Your task to perform on an android device: toggle improve location accuracy Image 0: 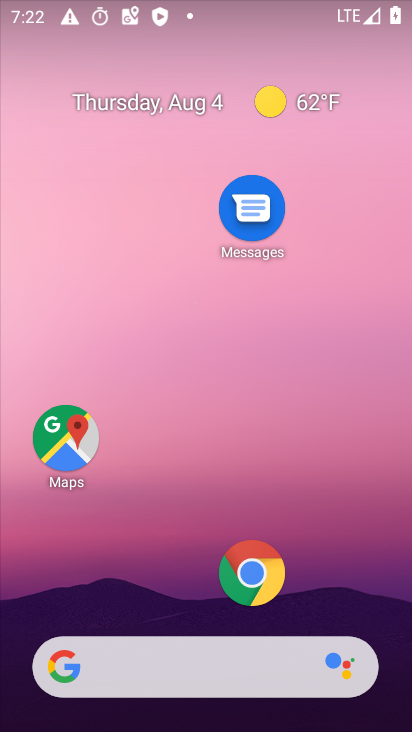
Step 0: press home button
Your task to perform on an android device: toggle improve location accuracy Image 1: 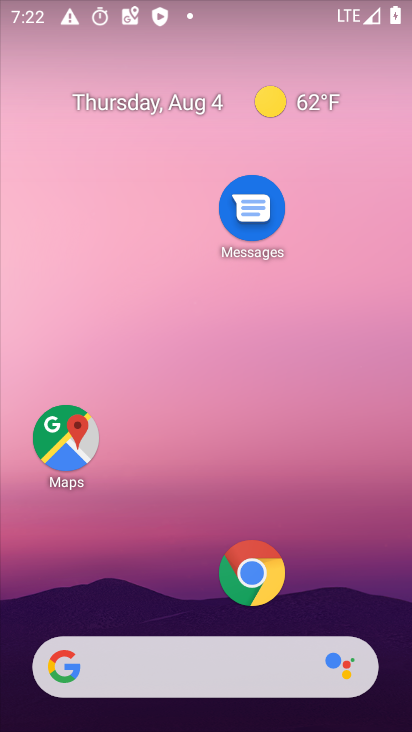
Step 1: drag from (201, 597) to (186, 135)
Your task to perform on an android device: toggle improve location accuracy Image 2: 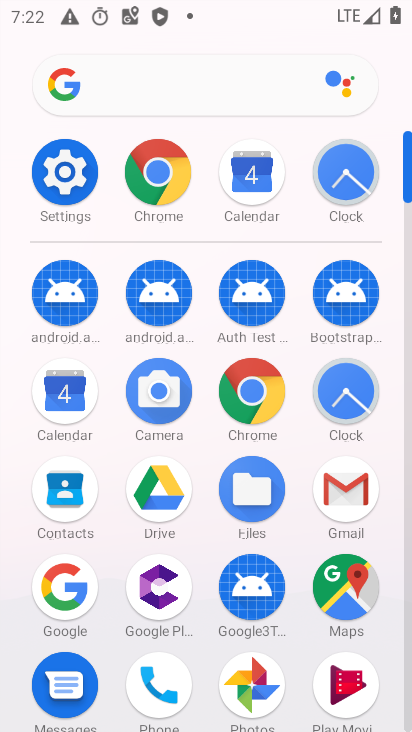
Step 2: click (58, 167)
Your task to perform on an android device: toggle improve location accuracy Image 3: 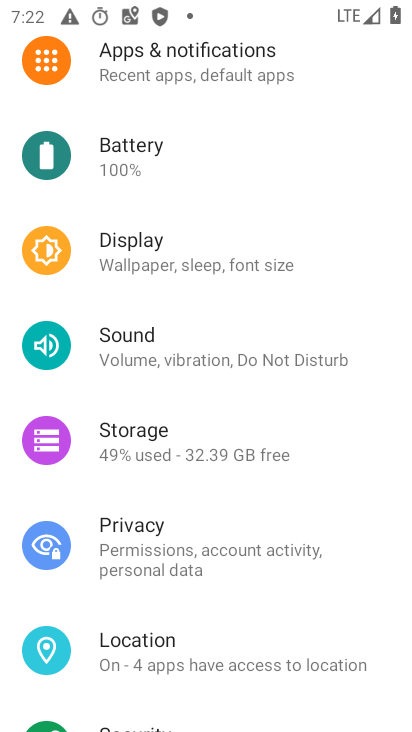
Step 3: click (179, 660)
Your task to perform on an android device: toggle improve location accuracy Image 4: 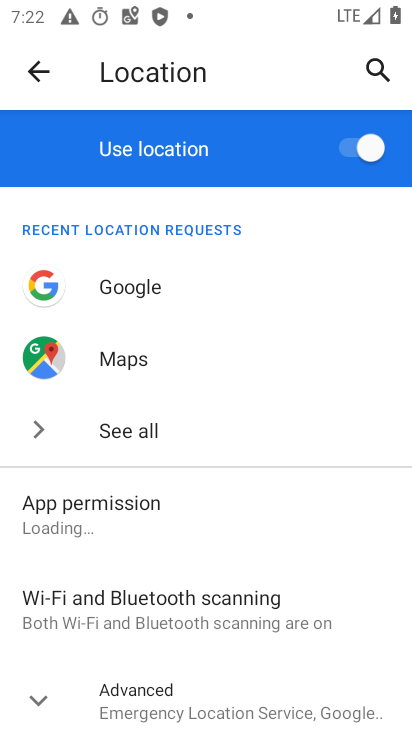
Step 4: drag from (332, 652) to (274, 361)
Your task to perform on an android device: toggle improve location accuracy Image 5: 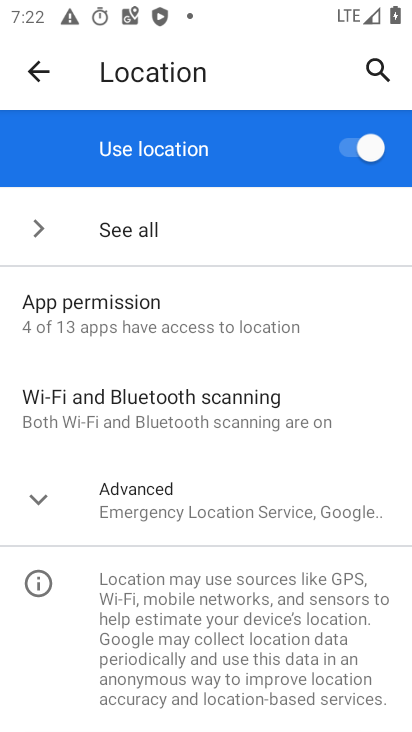
Step 5: click (153, 503)
Your task to perform on an android device: toggle improve location accuracy Image 6: 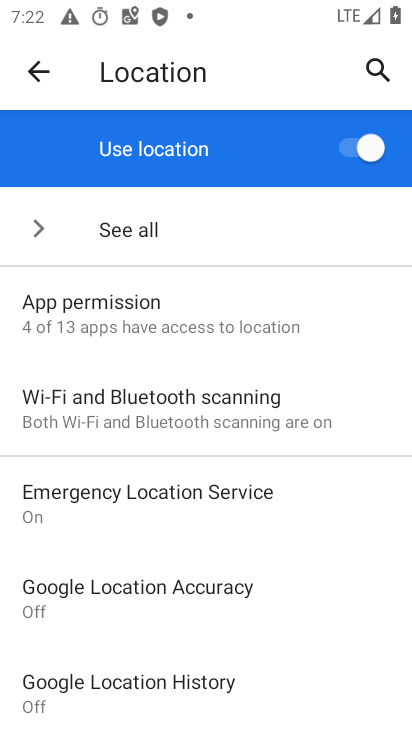
Step 6: click (196, 590)
Your task to perform on an android device: toggle improve location accuracy Image 7: 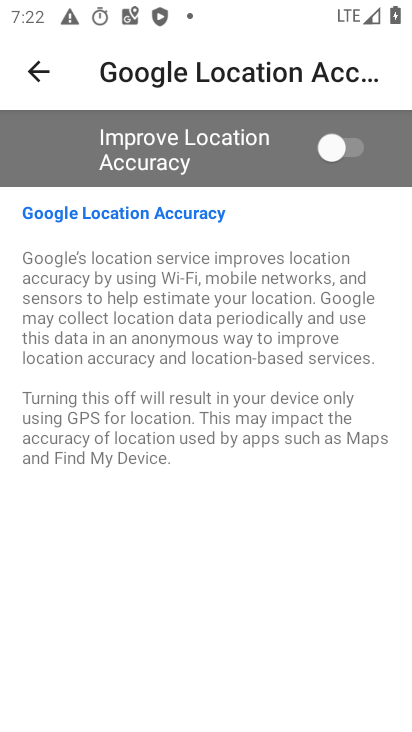
Step 7: click (334, 142)
Your task to perform on an android device: toggle improve location accuracy Image 8: 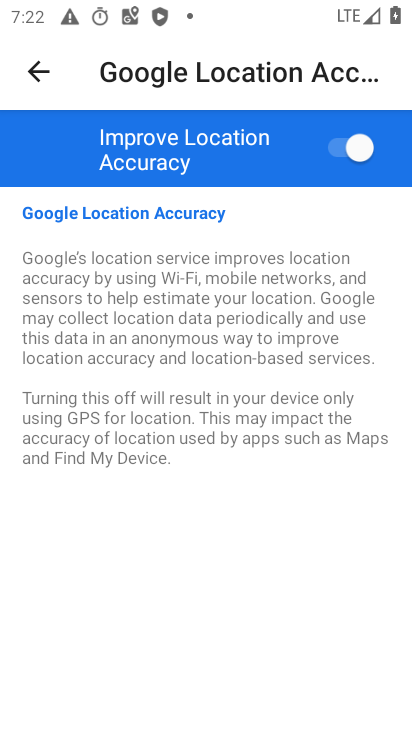
Step 8: task complete